Your task to perform on an android device: turn on airplane mode Image 0: 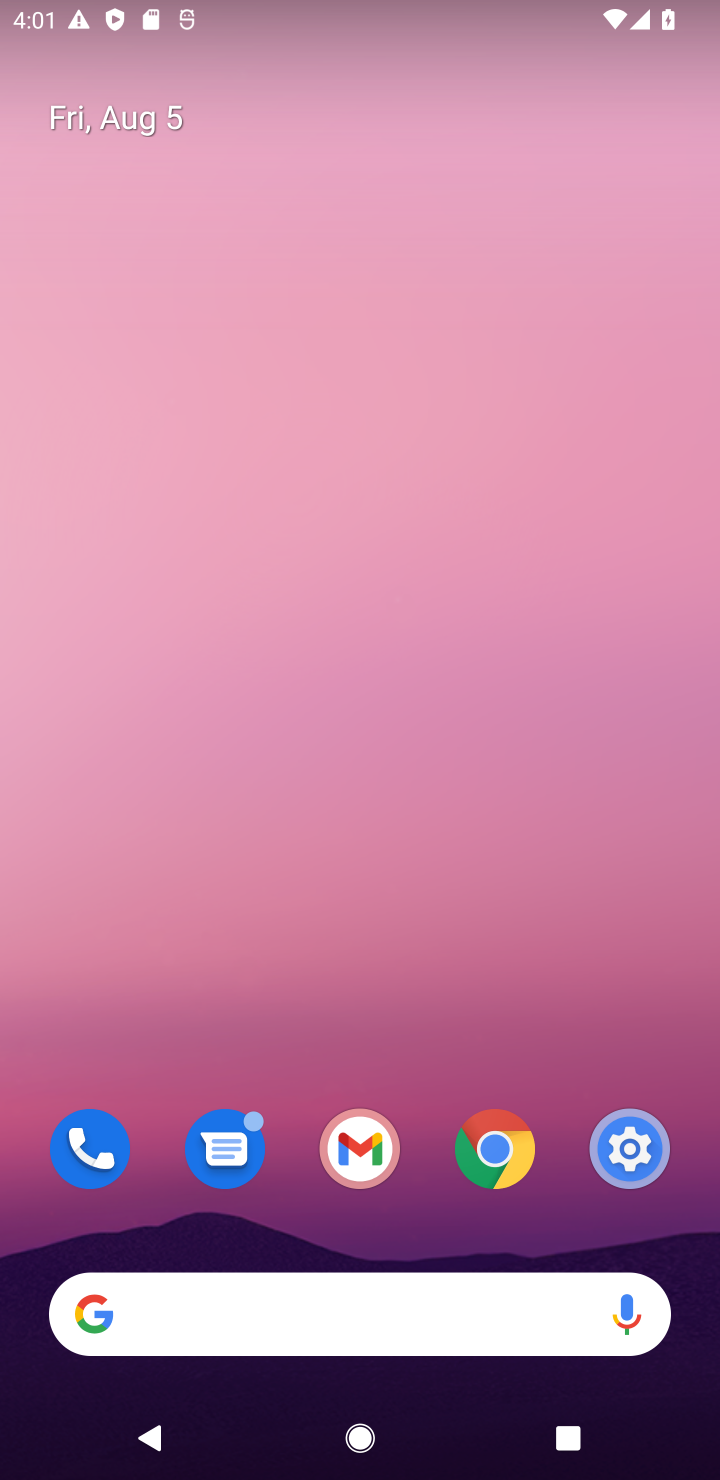
Step 0: drag from (636, 22) to (517, 942)
Your task to perform on an android device: turn on airplane mode Image 1: 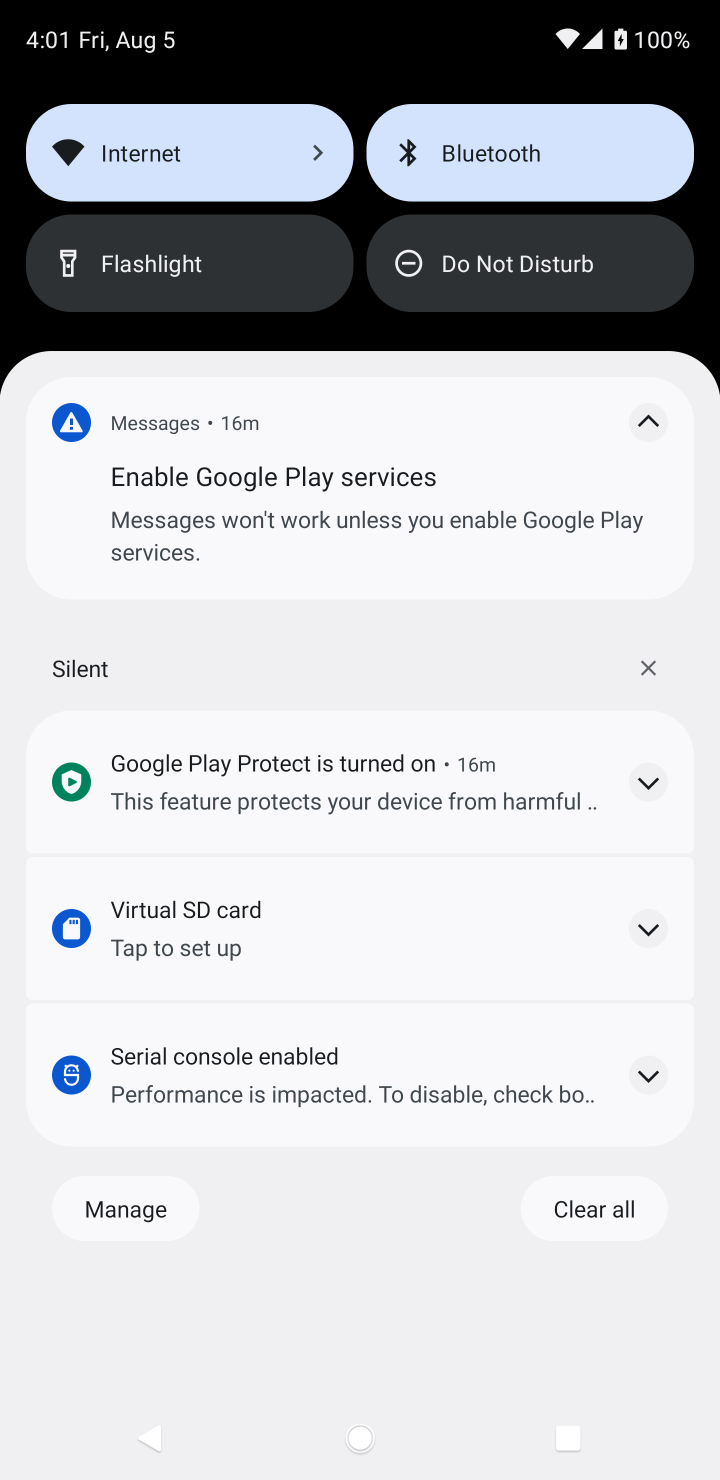
Step 1: drag from (400, 322) to (342, 1376)
Your task to perform on an android device: turn on airplane mode Image 2: 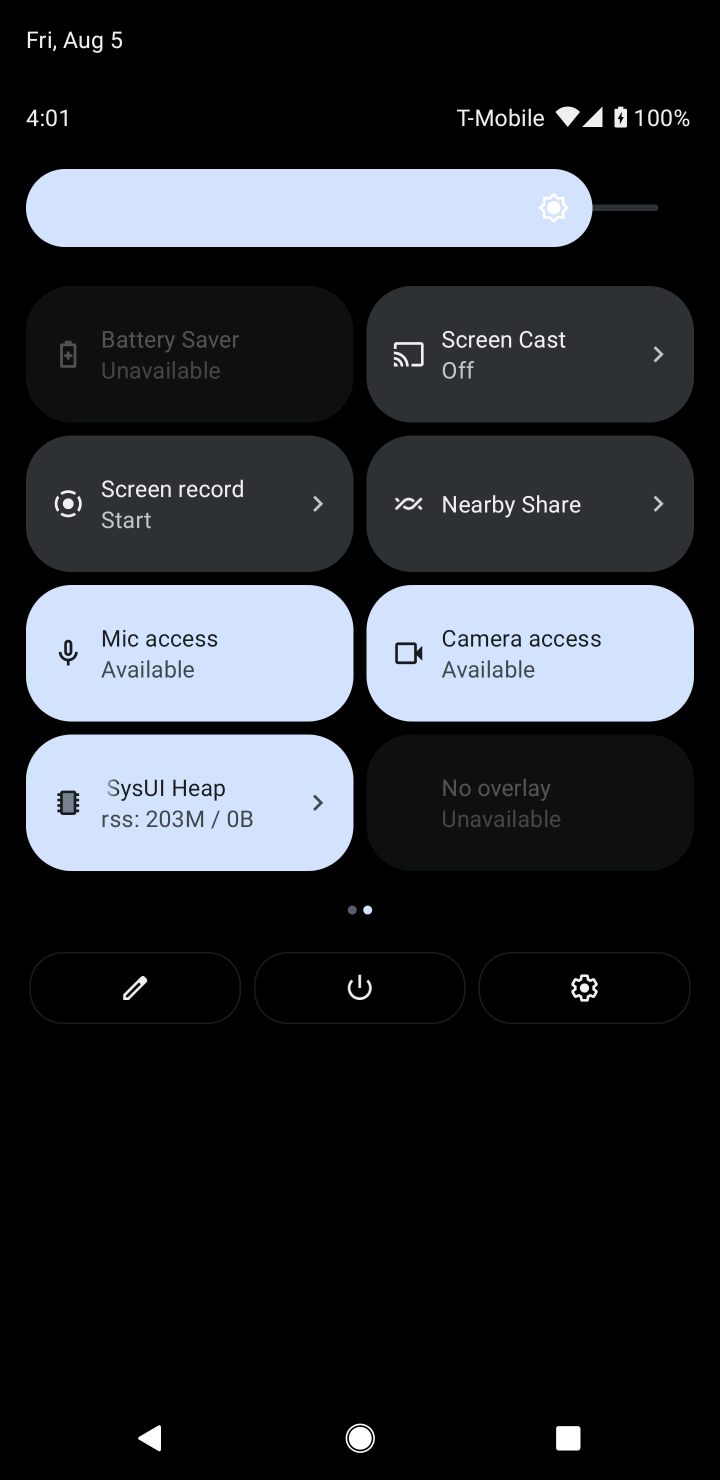
Step 2: drag from (75, 555) to (718, 614)
Your task to perform on an android device: turn on airplane mode Image 3: 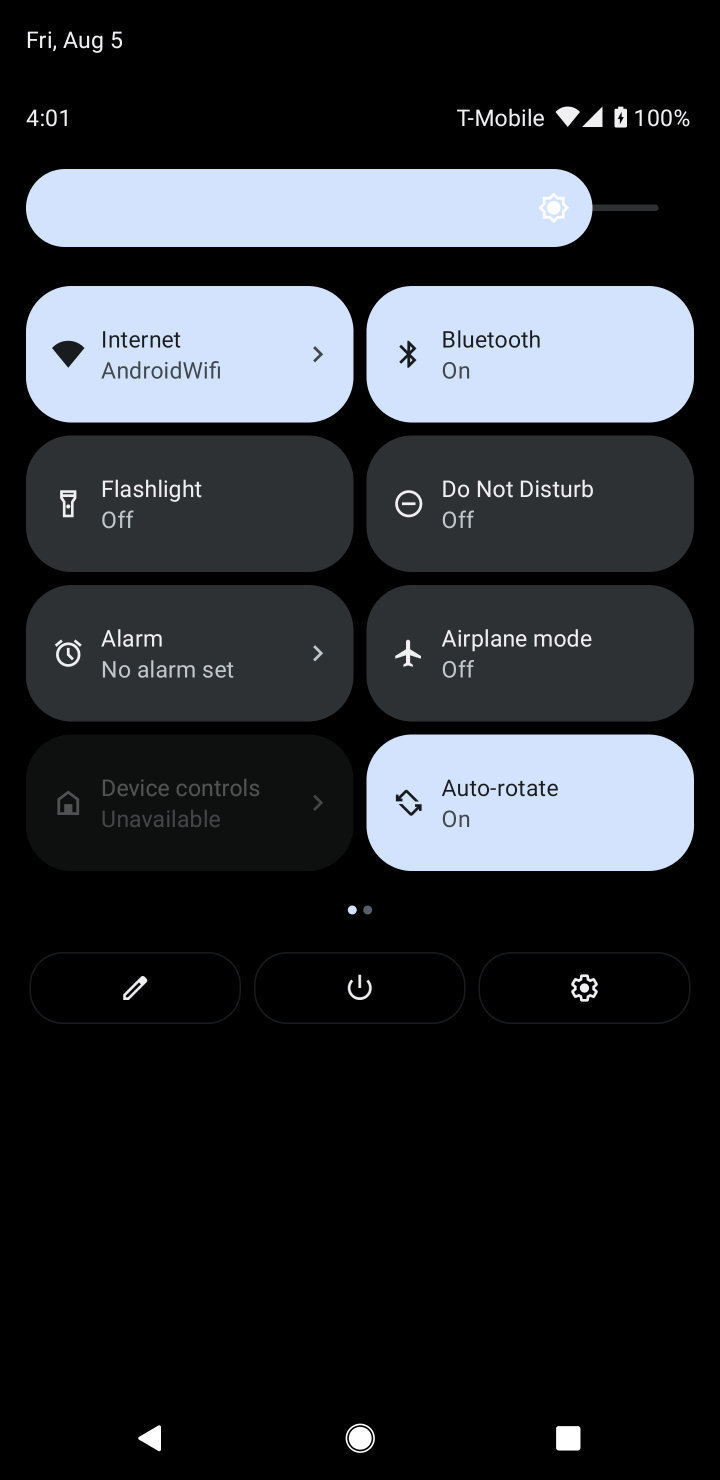
Step 3: click (498, 635)
Your task to perform on an android device: turn on airplane mode Image 4: 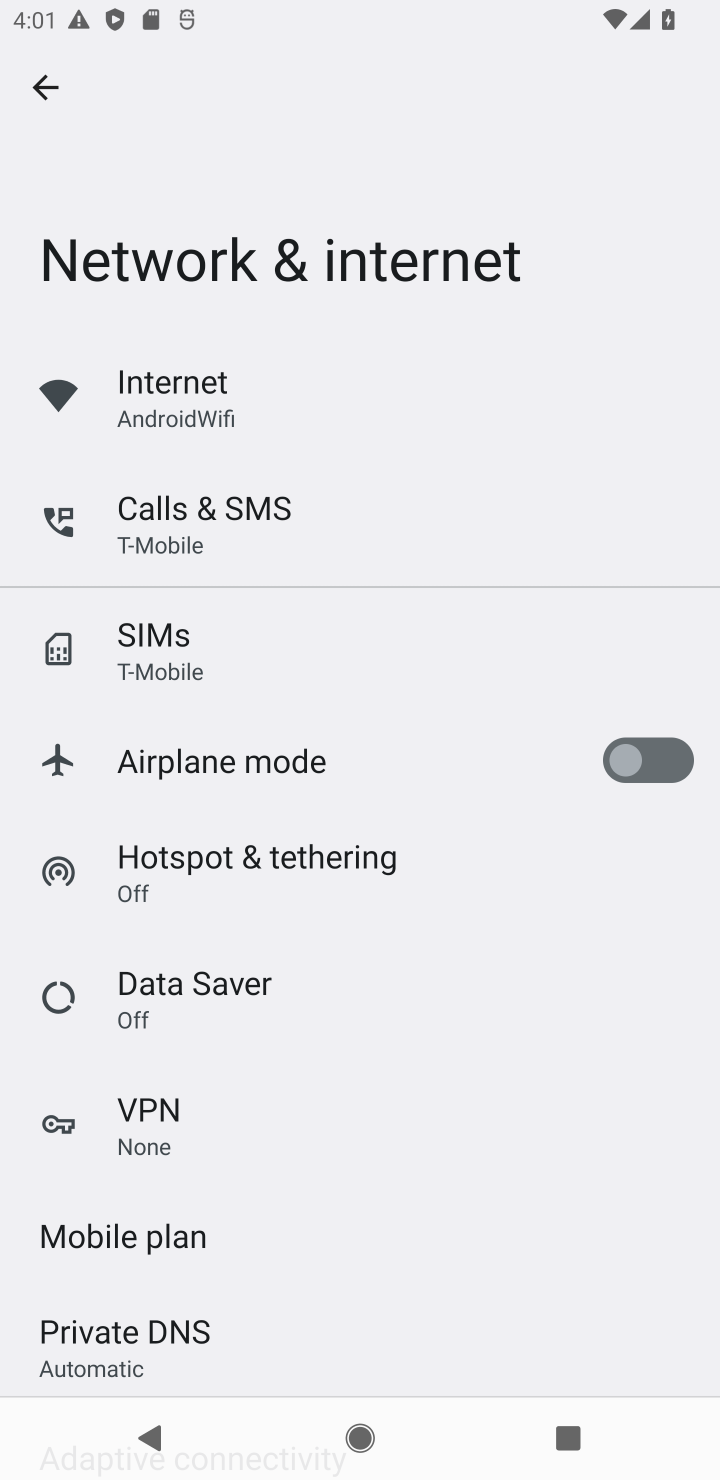
Step 4: click (649, 773)
Your task to perform on an android device: turn on airplane mode Image 5: 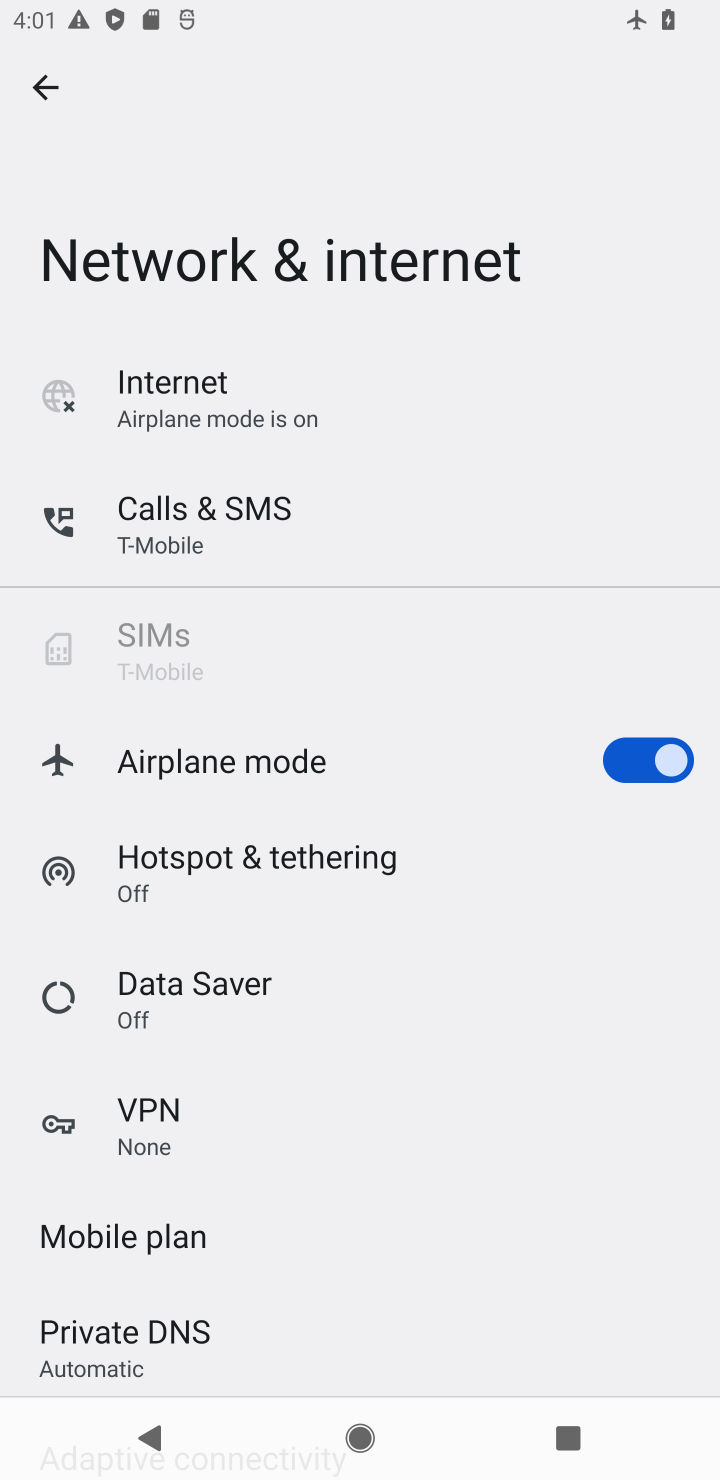
Step 5: task complete